Your task to perform on an android device: Open the Play Movies app and select the watchlist tab. Image 0: 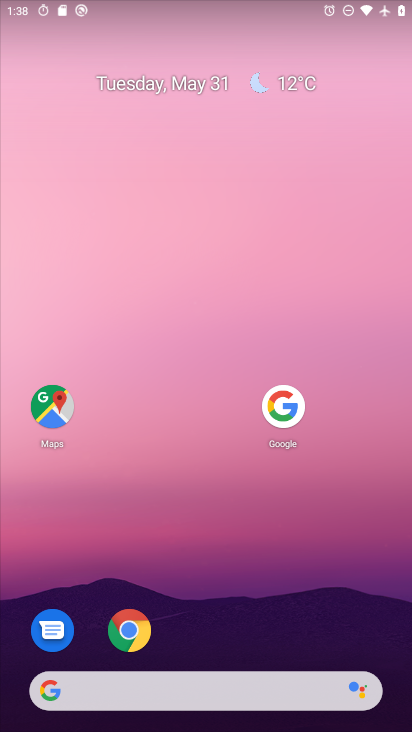
Step 0: drag from (203, 664) to (335, 135)
Your task to perform on an android device: Open the Play Movies app and select the watchlist tab. Image 1: 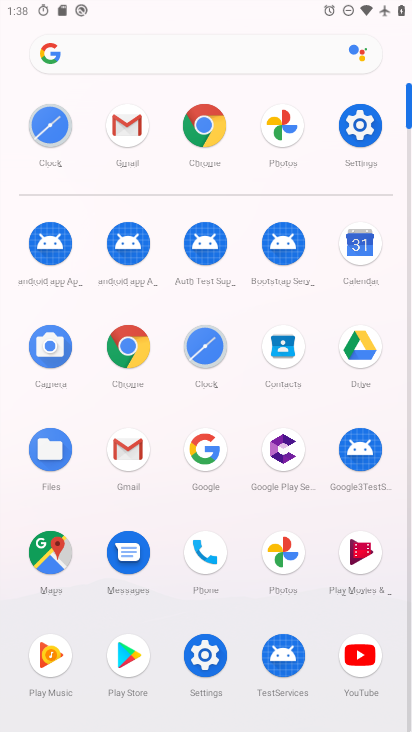
Step 1: click (352, 550)
Your task to perform on an android device: Open the Play Movies app and select the watchlist tab. Image 2: 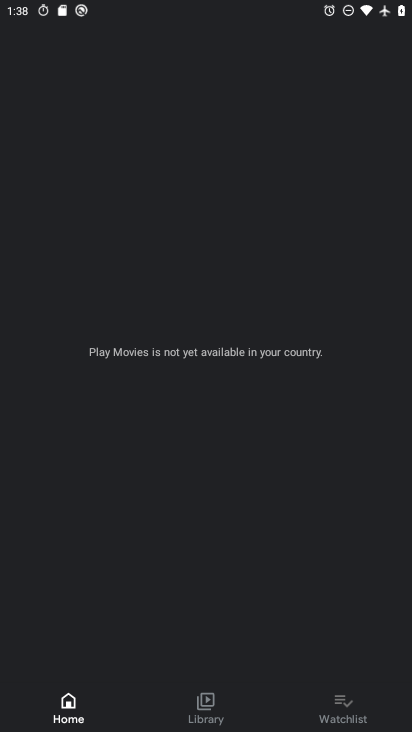
Step 2: click (334, 712)
Your task to perform on an android device: Open the Play Movies app and select the watchlist tab. Image 3: 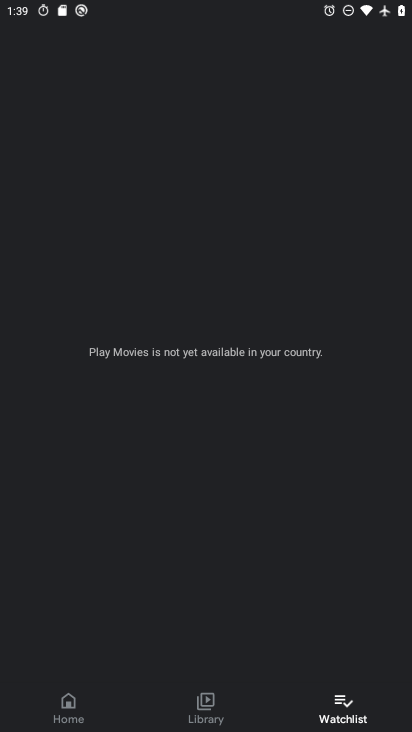
Step 3: task complete